Your task to perform on an android device: Show me popular videos on Youtube Image 0: 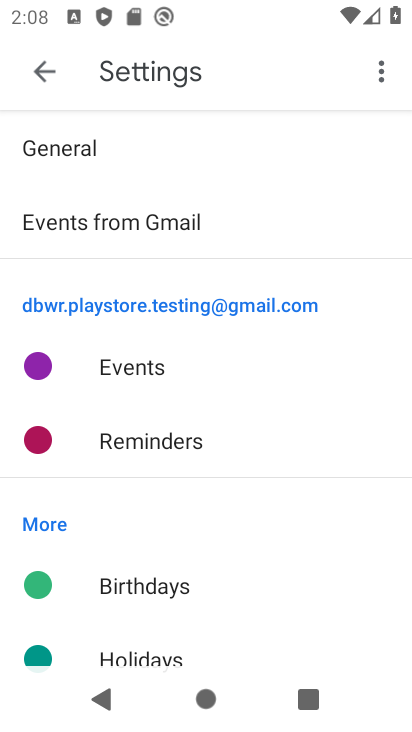
Step 0: press home button
Your task to perform on an android device: Show me popular videos on Youtube Image 1: 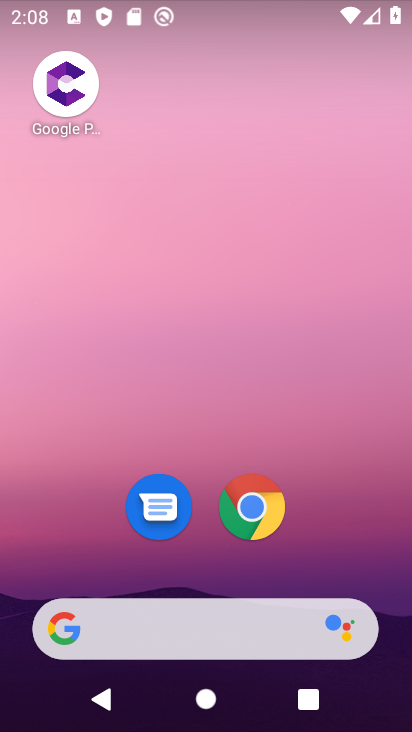
Step 1: drag from (218, 572) to (200, 189)
Your task to perform on an android device: Show me popular videos on Youtube Image 2: 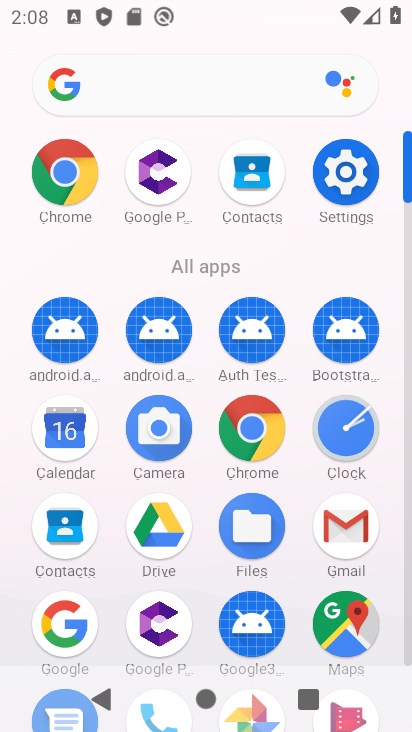
Step 2: drag from (219, 270) to (199, 0)
Your task to perform on an android device: Show me popular videos on Youtube Image 3: 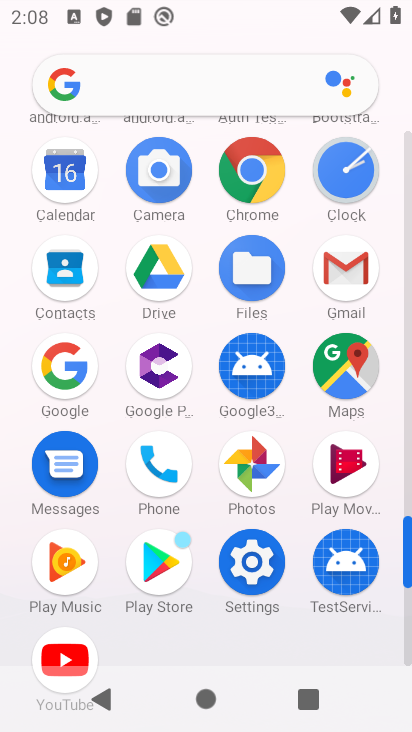
Step 3: click (66, 644)
Your task to perform on an android device: Show me popular videos on Youtube Image 4: 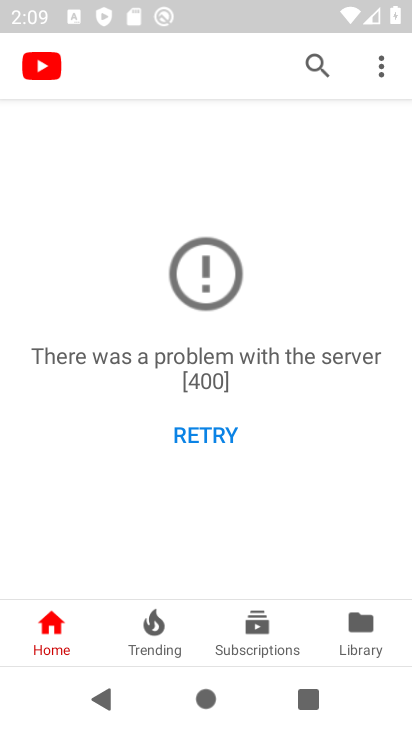
Step 4: click (147, 648)
Your task to perform on an android device: Show me popular videos on Youtube Image 5: 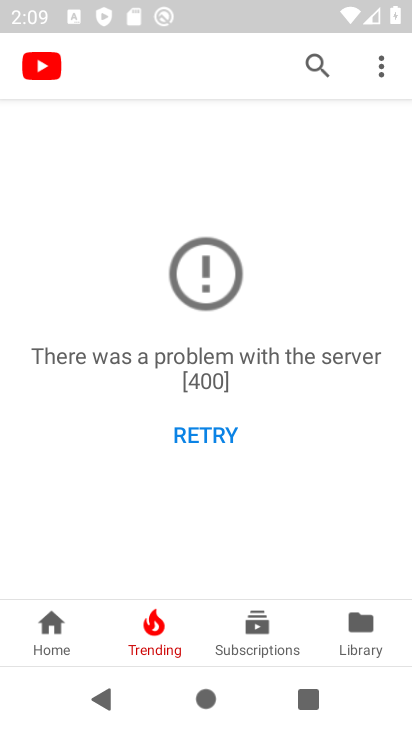
Step 5: click (207, 439)
Your task to perform on an android device: Show me popular videos on Youtube Image 6: 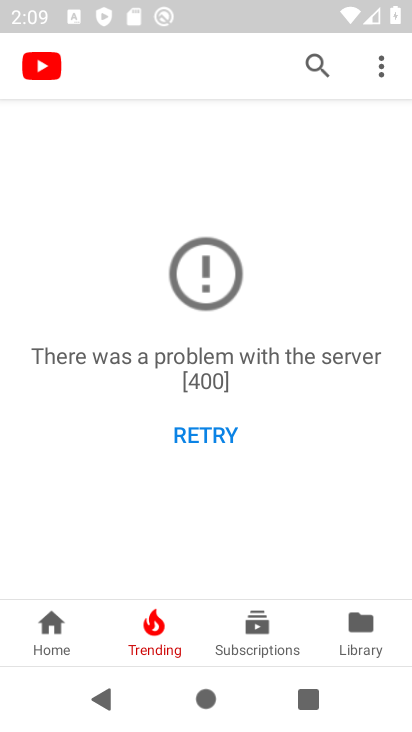
Step 6: task complete